Your task to perform on an android device: turn on data saver in the chrome app Image 0: 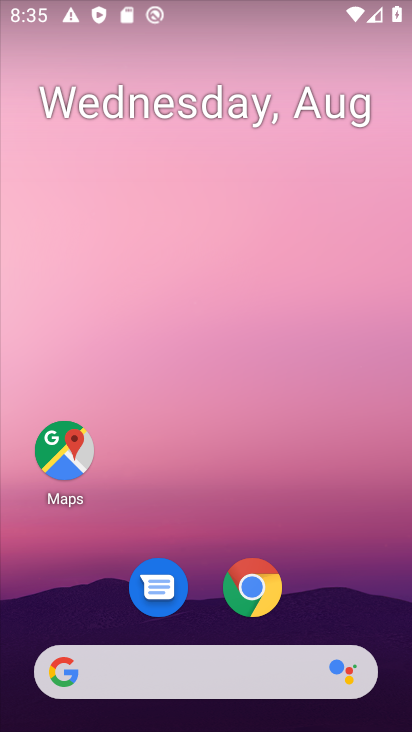
Step 0: drag from (260, 699) to (195, 101)
Your task to perform on an android device: turn on data saver in the chrome app Image 1: 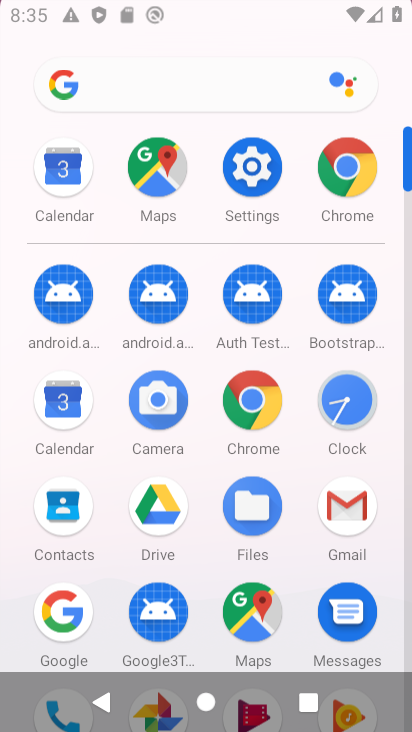
Step 1: drag from (254, 674) to (180, 193)
Your task to perform on an android device: turn on data saver in the chrome app Image 2: 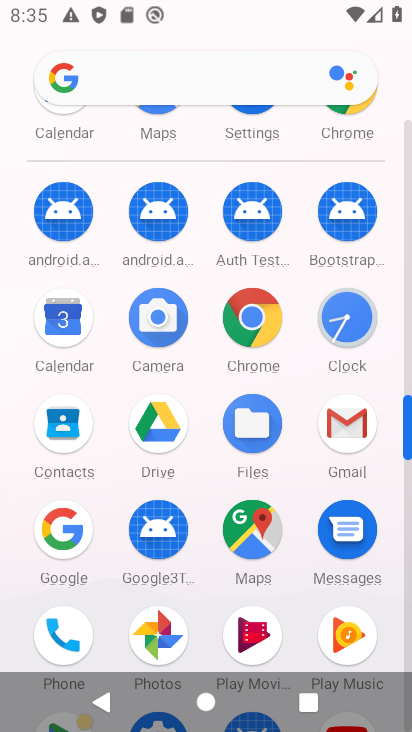
Step 2: drag from (244, 565) to (236, 117)
Your task to perform on an android device: turn on data saver in the chrome app Image 3: 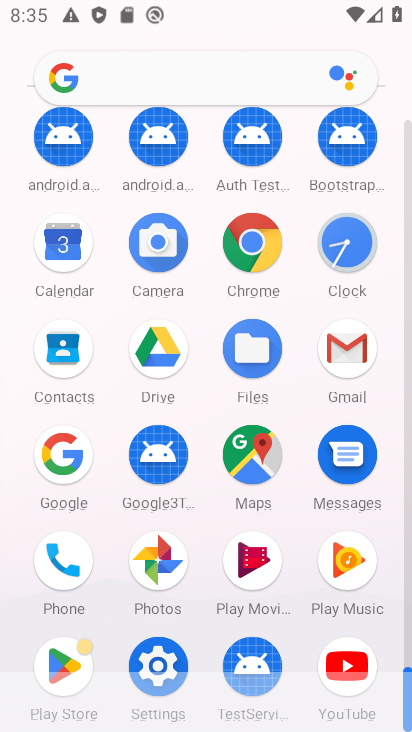
Step 3: click (249, 257)
Your task to perform on an android device: turn on data saver in the chrome app Image 4: 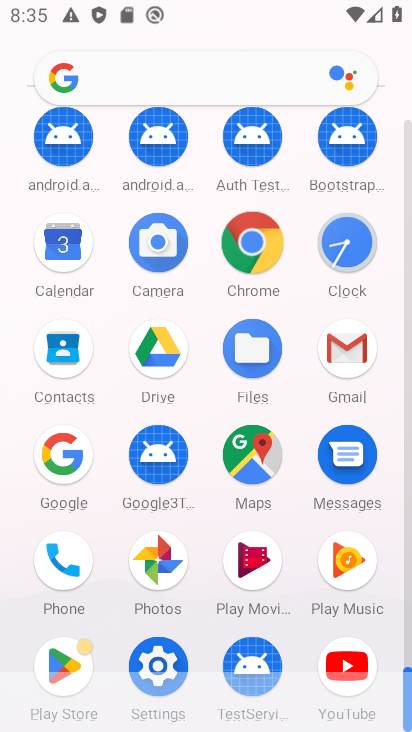
Step 4: click (249, 250)
Your task to perform on an android device: turn on data saver in the chrome app Image 5: 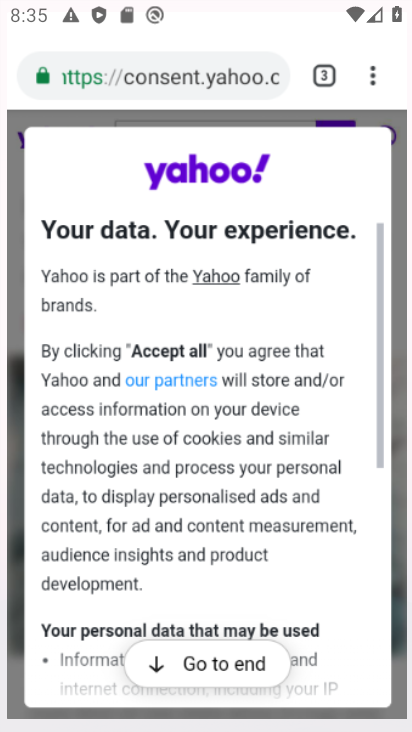
Step 5: click (252, 244)
Your task to perform on an android device: turn on data saver in the chrome app Image 6: 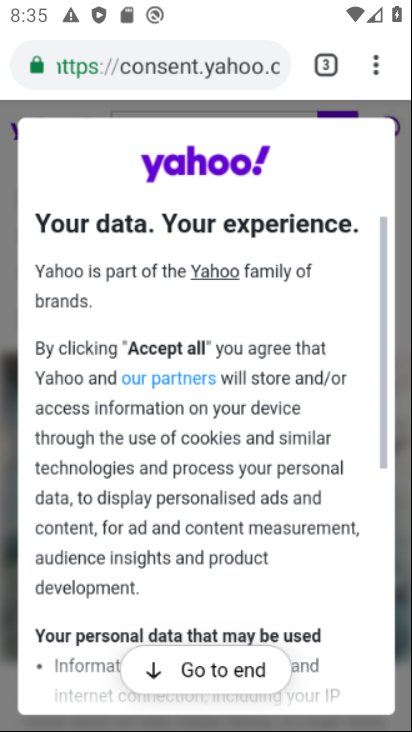
Step 6: click (251, 243)
Your task to perform on an android device: turn on data saver in the chrome app Image 7: 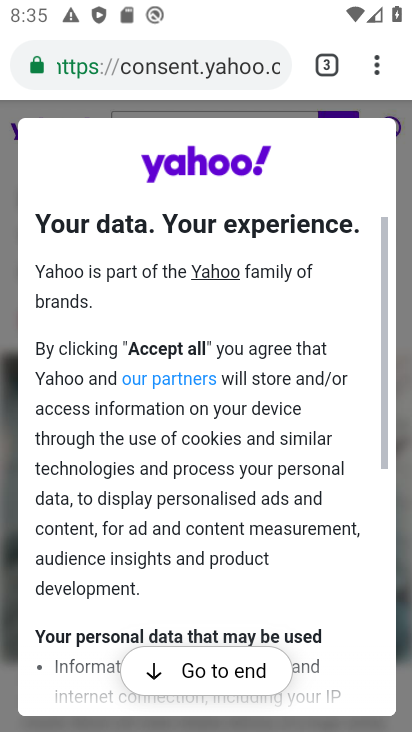
Step 7: drag from (375, 58) to (132, 640)
Your task to perform on an android device: turn on data saver in the chrome app Image 8: 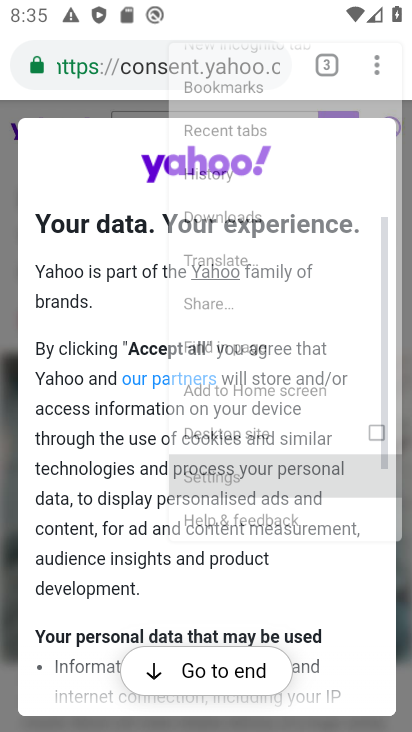
Step 8: click (131, 641)
Your task to perform on an android device: turn on data saver in the chrome app Image 9: 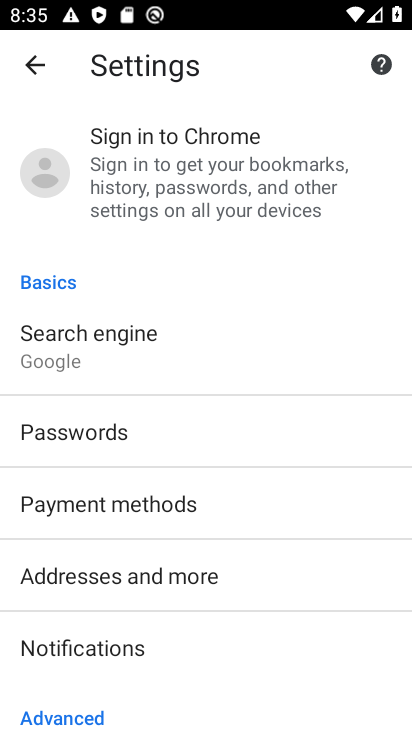
Step 9: drag from (115, 546) to (53, 183)
Your task to perform on an android device: turn on data saver in the chrome app Image 10: 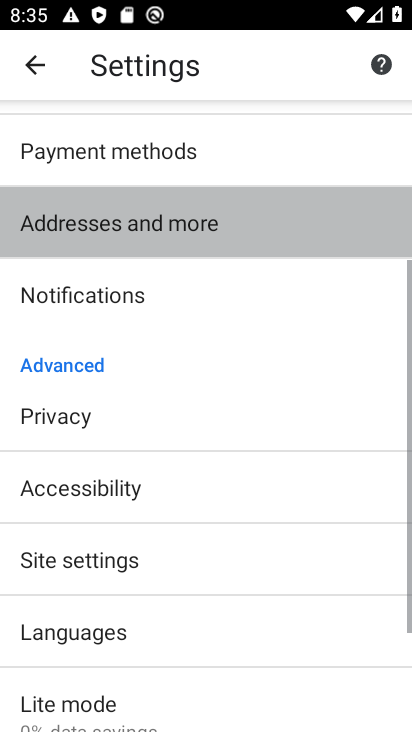
Step 10: drag from (130, 456) to (130, 215)
Your task to perform on an android device: turn on data saver in the chrome app Image 11: 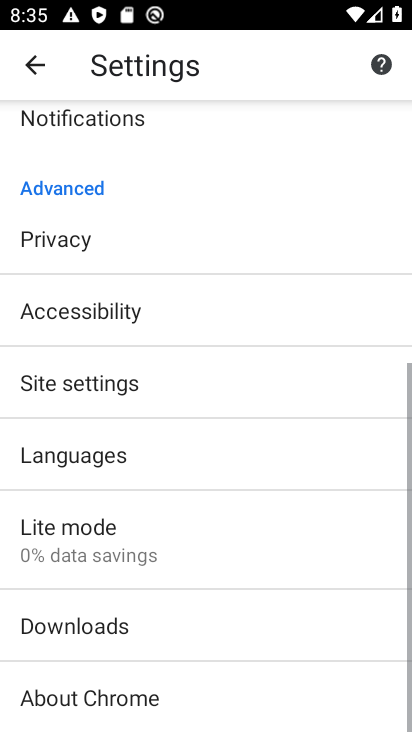
Step 11: drag from (174, 512) to (174, 195)
Your task to perform on an android device: turn on data saver in the chrome app Image 12: 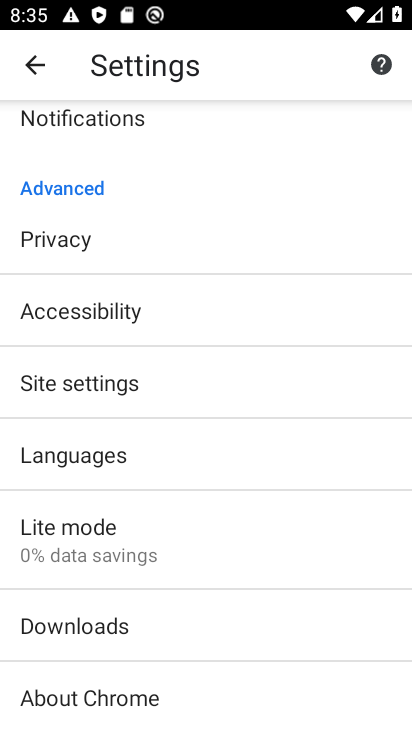
Step 12: click (64, 535)
Your task to perform on an android device: turn on data saver in the chrome app Image 13: 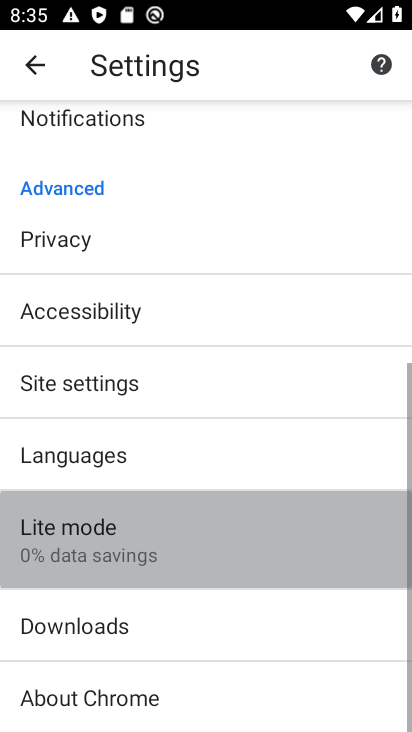
Step 13: click (65, 535)
Your task to perform on an android device: turn on data saver in the chrome app Image 14: 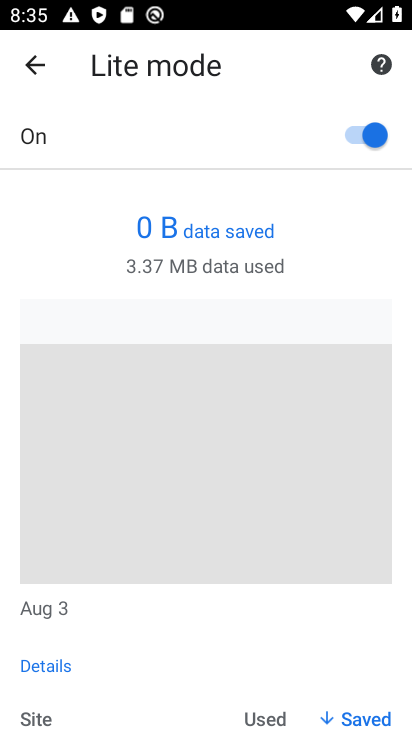
Step 14: task complete